Your task to perform on an android device: Show me productivity apps on the Play Store Image 0: 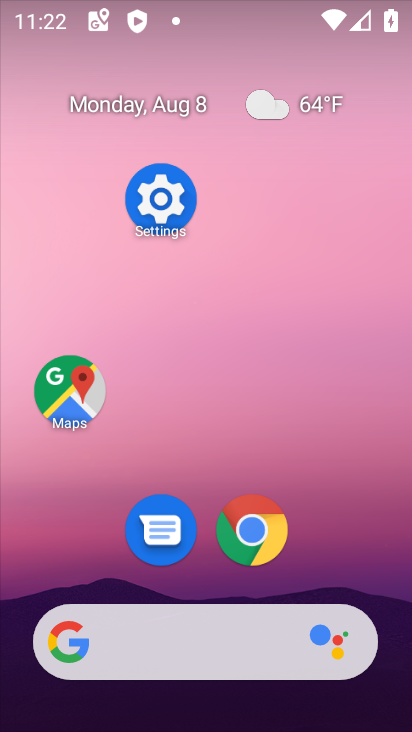
Step 0: drag from (231, 516) to (231, 219)
Your task to perform on an android device: Show me productivity apps on the Play Store Image 1: 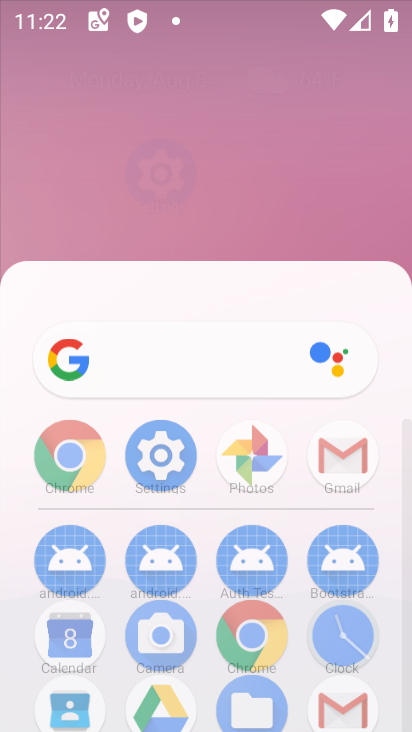
Step 1: drag from (241, 265) to (241, 211)
Your task to perform on an android device: Show me productivity apps on the Play Store Image 2: 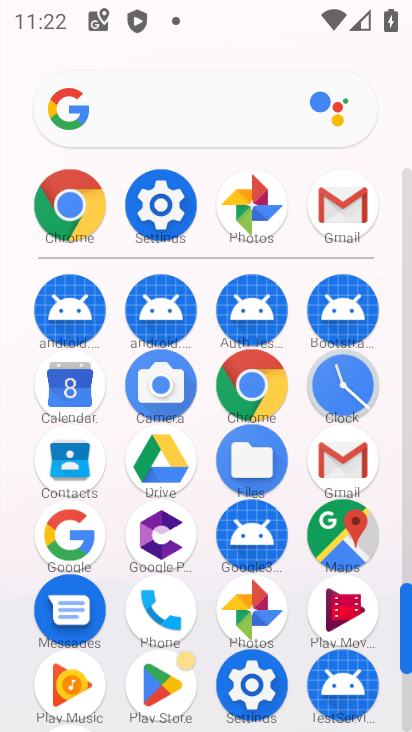
Step 2: drag from (190, 593) to (242, 342)
Your task to perform on an android device: Show me productivity apps on the Play Store Image 3: 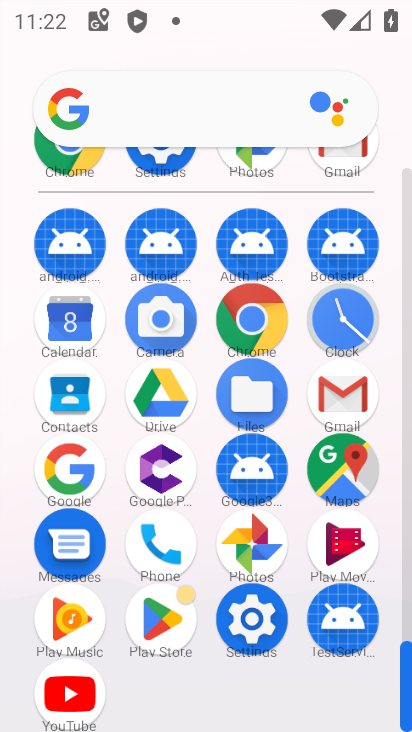
Step 3: click (149, 627)
Your task to perform on an android device: Show me productivity apps on the Play Store Image 4: 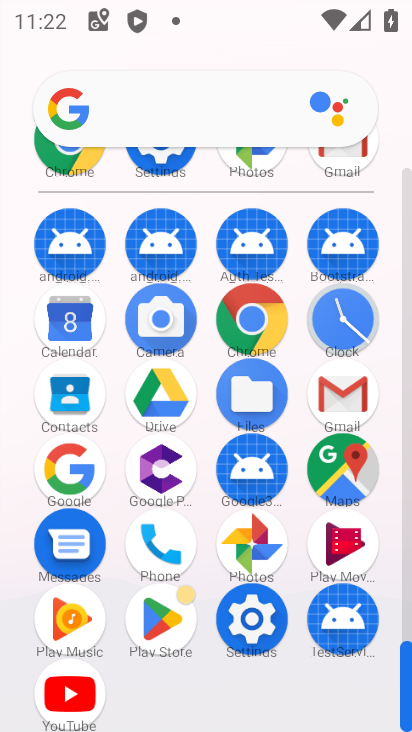
Step 4: click (149, 627)
Your task to perform on an android device: Show me productivity apps on the Play Store Image 5: 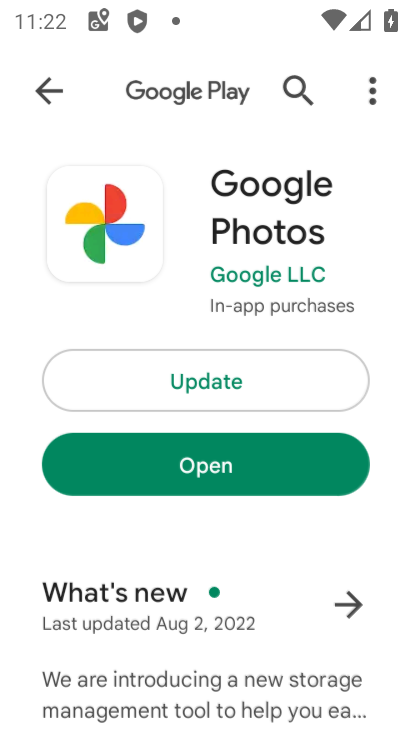
Step 5: click (153, 607)
Your task to perform on an android device: Show me productivity apps on the Play Store Image 6: 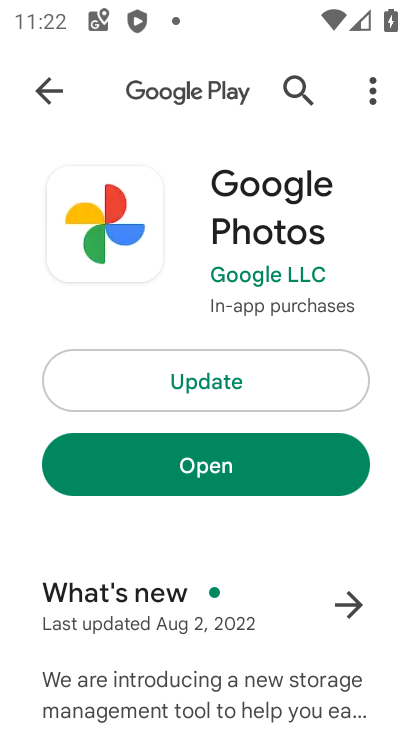
Step 6: click (152, 606)
Your task to perform on an android device: Show me productivity apps on the Play Store Image 7: 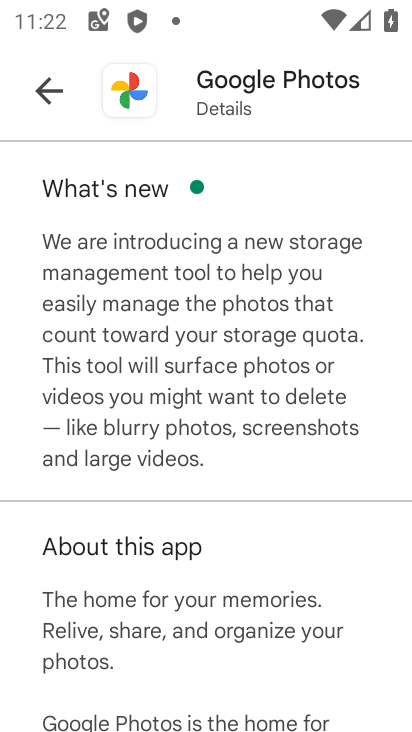
Step 7: click (31, 82)
Your task to perform on an android device: Show me productivity apps on the Play Store Image 8: 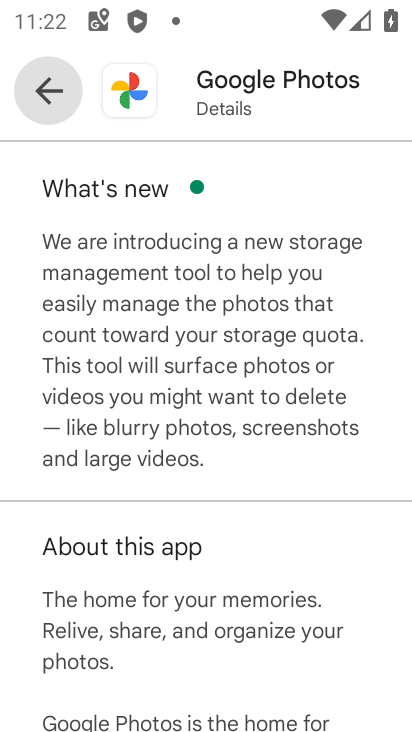
Step 8: click (31, 81)
Your task to perform on an android device: Show me productivity apps on the Play Store Image 9: 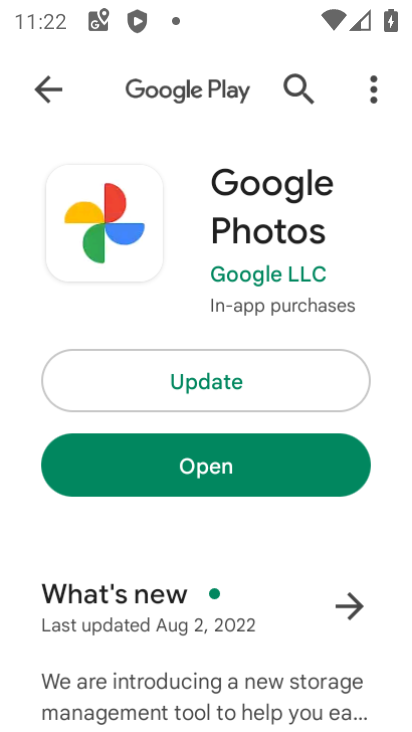
Step 9: click (31, 81)
Your task to perform on an android device: Show me productivity apps on the Play Store Image 10: 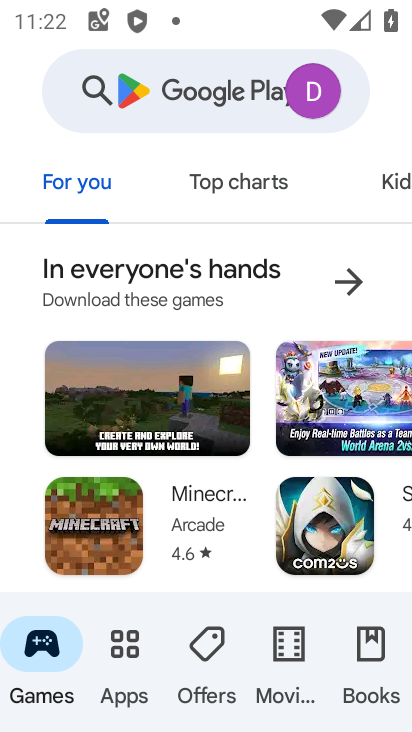
Step 10: press back button
Your task to perform on an android device: Show me productivity apps on the Play Store Image 11: 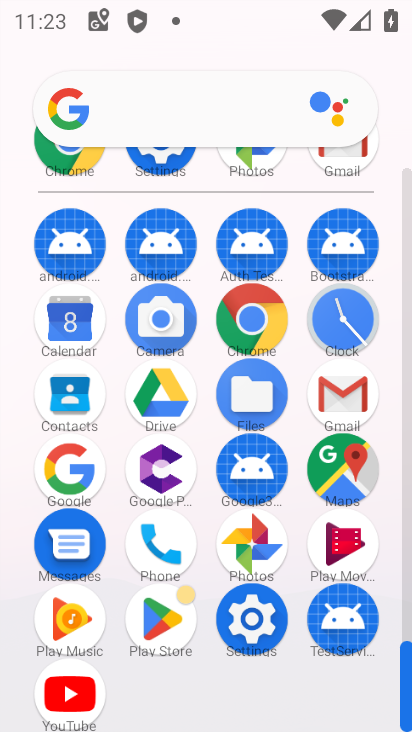
Step 11: click (158, 629)
Your task to perform on an android device: Show me productivity apps on the Play Store Image 12: 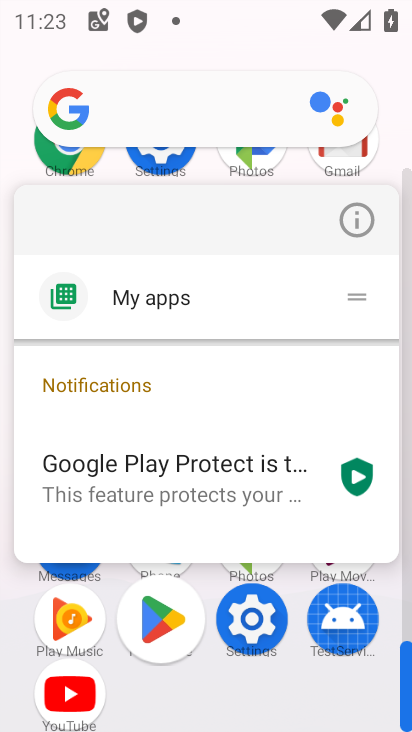
Step 12: click (158, 629)
Your task to perform on an android device: Show me productivity apps on the Play Store Image 13: 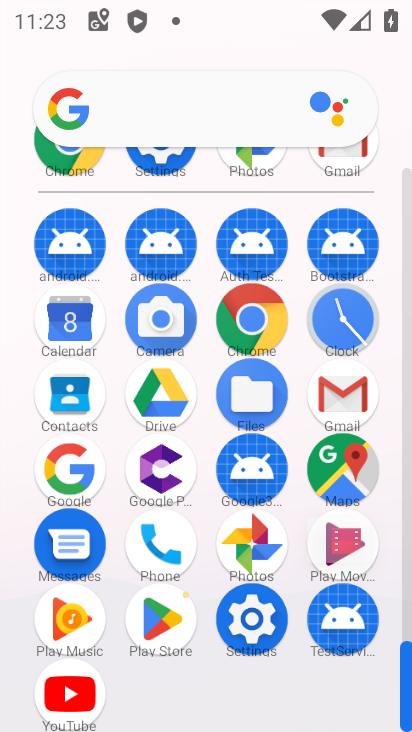
Step 13: click (156, 633)
Your task to perform on an android device: Show me productivity apps on the Play Store Image 14: 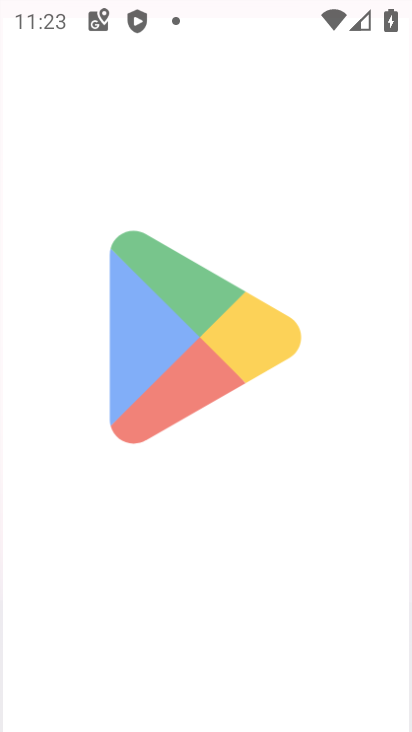
Step 14: click (163, 643)
Your task to perform on an android device: Show me productivity apps on the Play Store Image 15: 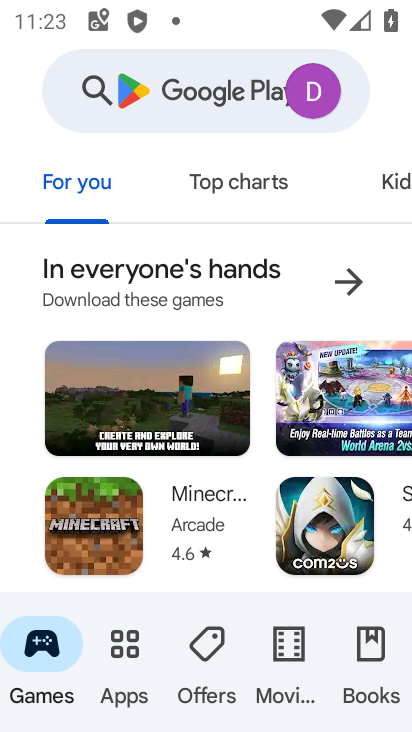
Step 15: click (187, 84)
Your task to perform on an android device: Show me productivity apps on the Play Store Image 16: 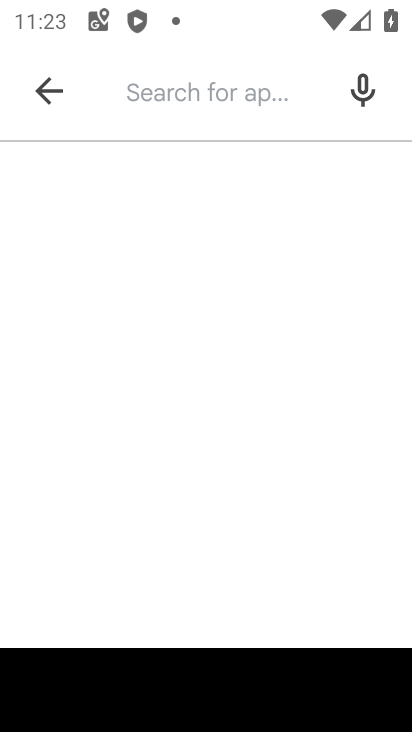
Step 16: click (222, 106)
Your task to perform on an android device: Show me productivity apps on the Play Store Image 17: 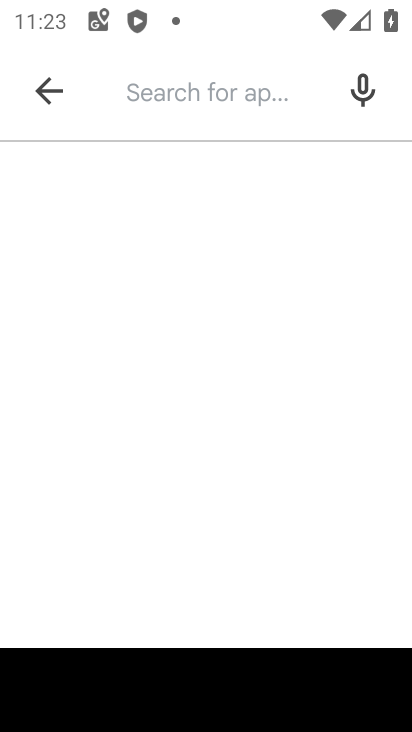
Step 17: type "productivity apps"
Your task to perform on an android device: Show me productivity apps on the Play Store Image 18: 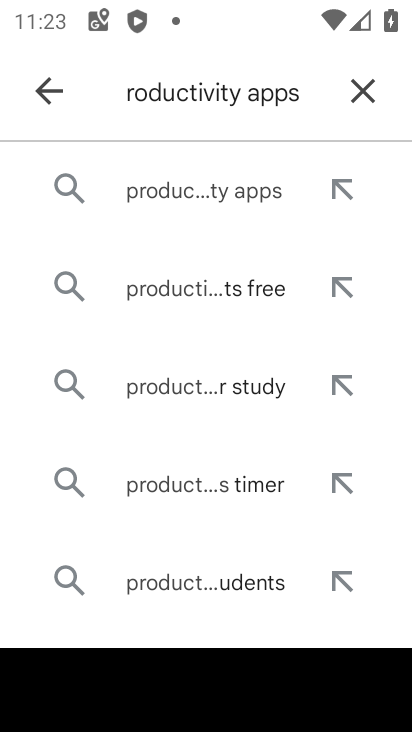
Step 18: click (218, 198)
Your task to perform on an android device: Show me productivity apps on the Play Store Image 19: 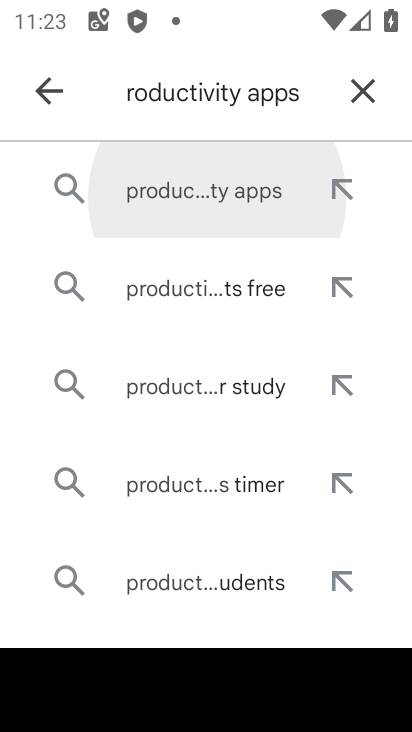
Step 19: click (217, 193)
Your task to perform on an android device: Show me productivity apps on the Play Store Image 20: 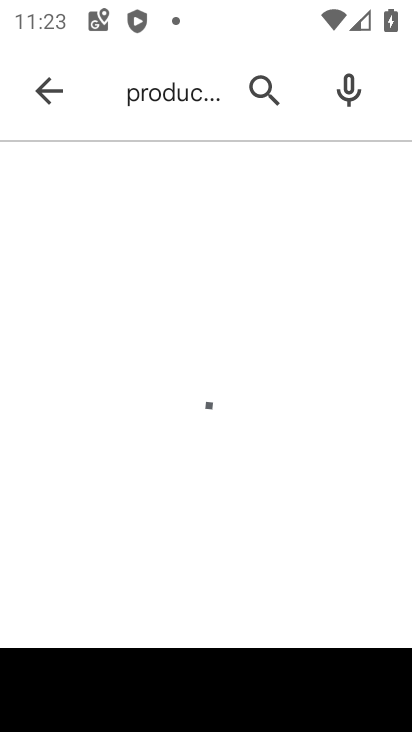
Step 20: click (218, 193)
Your task to perform on an android device: Show me productivity apps on the Play Store Image 21: 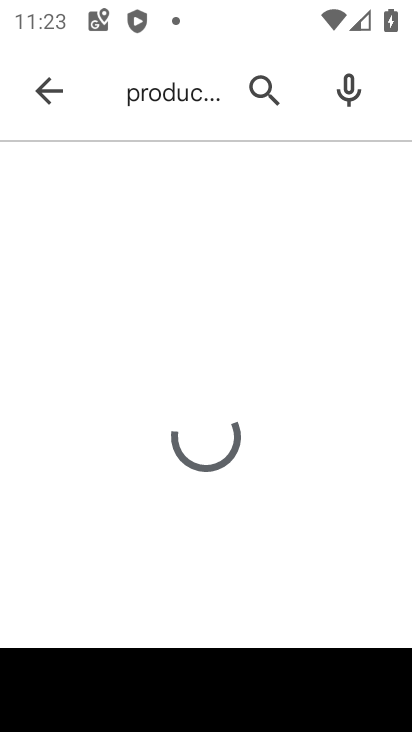
Step 21: click (222, 193)
Your task to perform on an android device: Show me productivity apps on the Play Store Image 22: 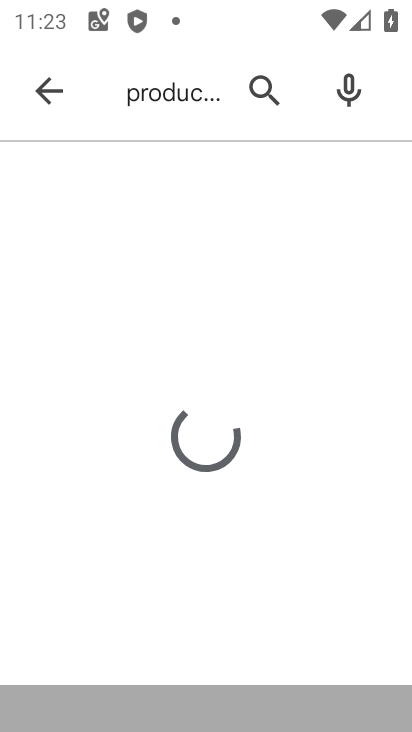
Step 22: click (227, 191)
Your task to perform on an android device: Show me productivity apps on the Play Store Image 23: 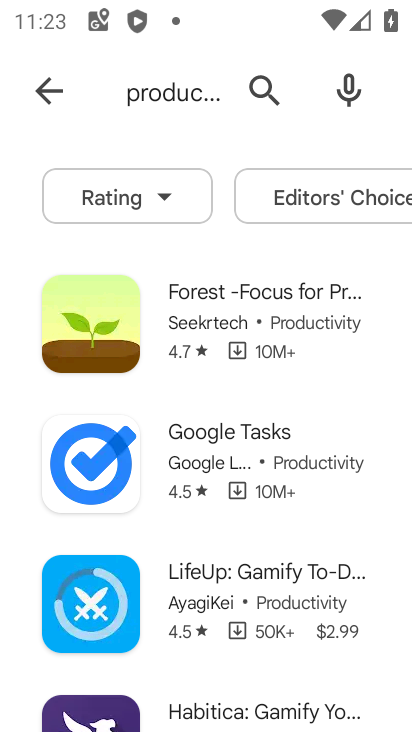
Step 23: task complete